Your task to perform on an android device: Do I have any events this weekend? Image 0: 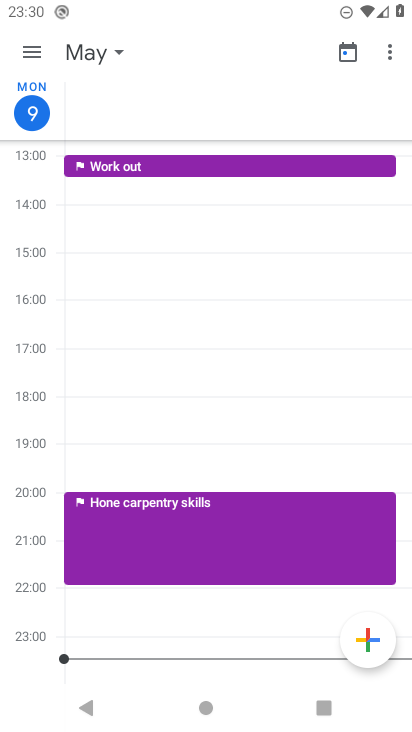
Step 0: press home button
Your task to perform on an android device: Do I have any events this weekend? Image 1: 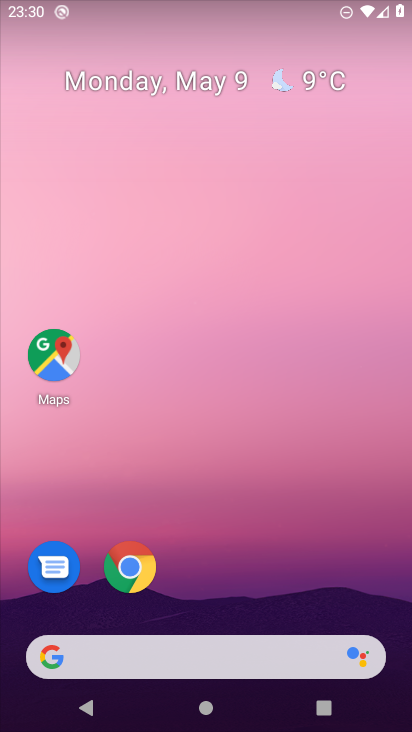
Step 1: drag from (210, 563) to (248, 46)
Your task to perform on an android device: Do I have any events this weekend? Image 2: 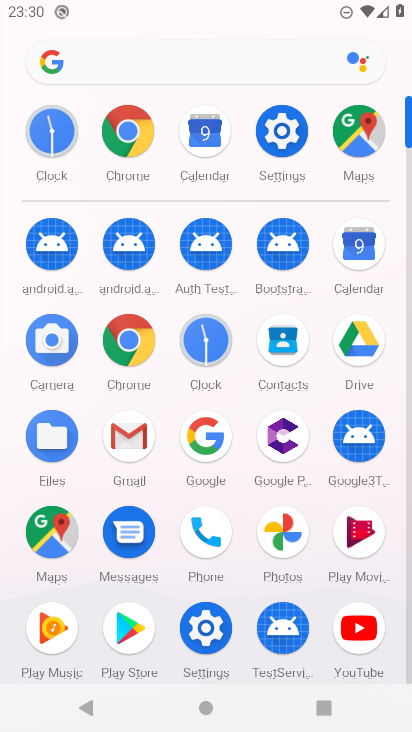
Step 2: click (357, 251)
Your task to perform on an android device: Do I have any events this weekend? Image 3: 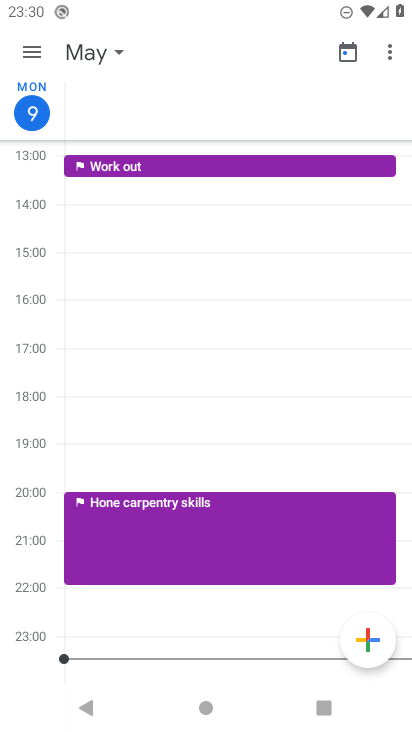
Step 3: click (36, 46)
Your task to perform on an android device: Do I have any events this weekend? Image 4: 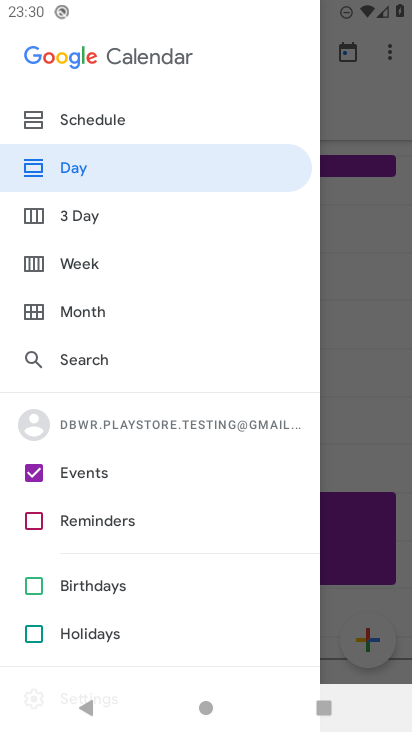
Step 4: click (95, 261)
Your task to perform on an android device: Do I have any events this weekend? Image 5: 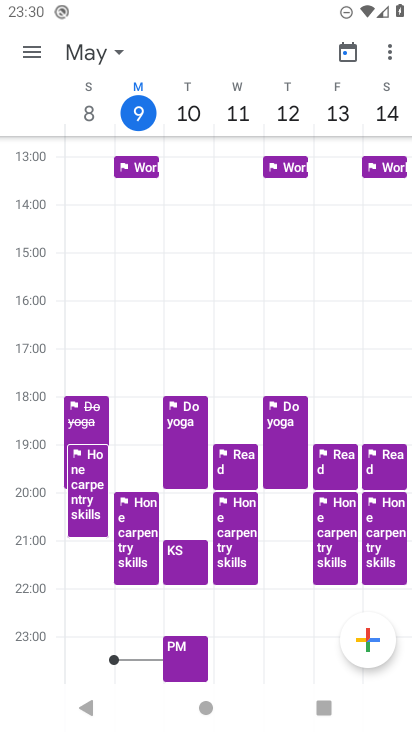
Step 5: drag from (387, 110) to (111, 100)
Your task to perform on an android device: Do I have any events this weekend? Image 6: 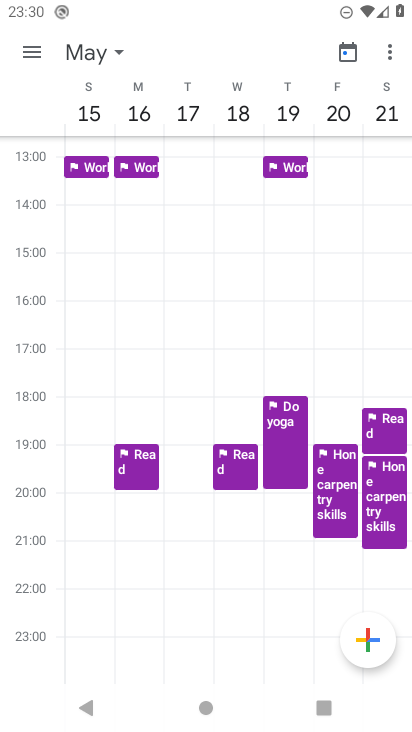
Step 6: drag from (75, 109) to (387, 115)
Your task to perform on an android device: Do I have any events this weekend? Image 7: 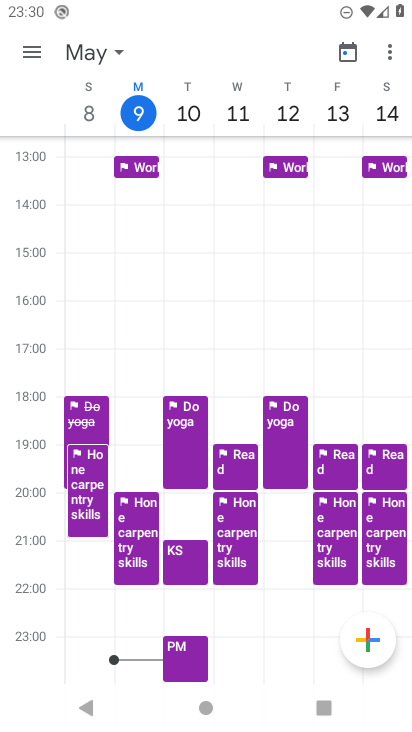
Step 7: click (139, 123)
Your task to perform on an android device: Do I have any events this weekend? Image 8: 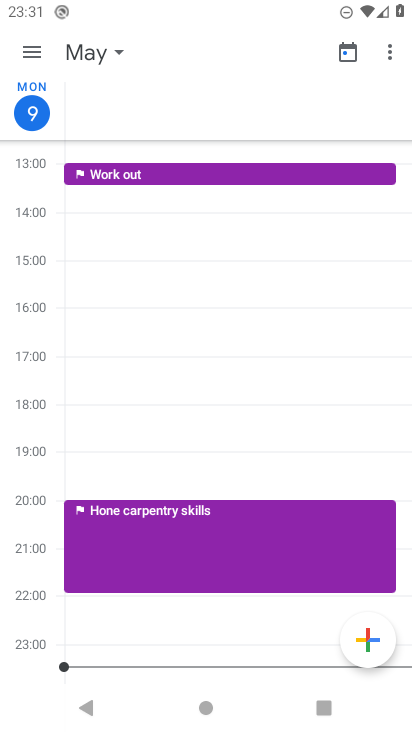
Step 8: click (50, 112)
Your task to perform on an android device: Do I have any events this weekend? Image 9: 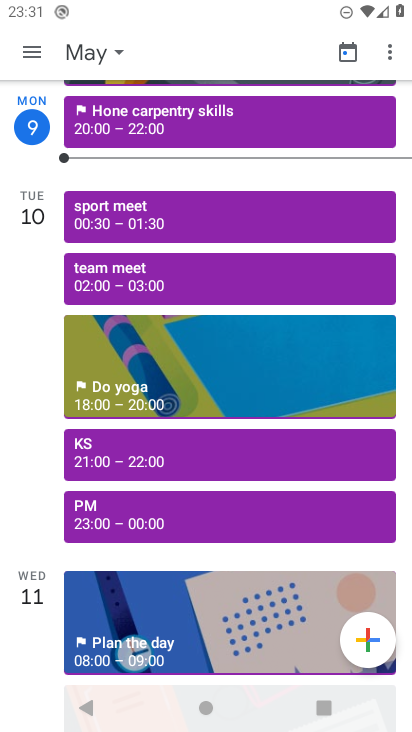
Step 9: task complete